Your task to perform on an android device: Open eBay Image 0: 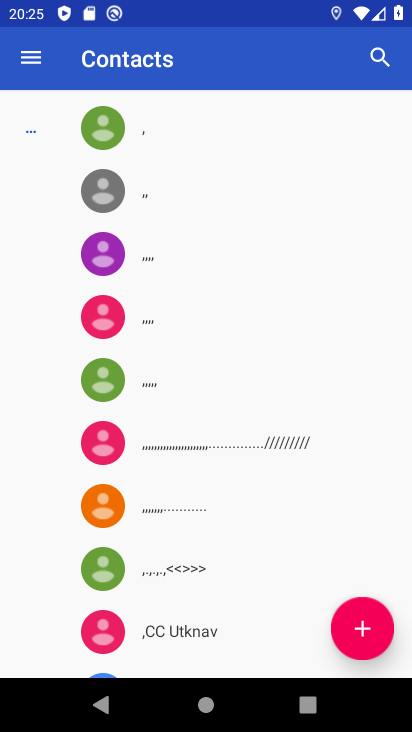
Step 0: press home button
Your task to perform on an android device: Open eBay Image 1: 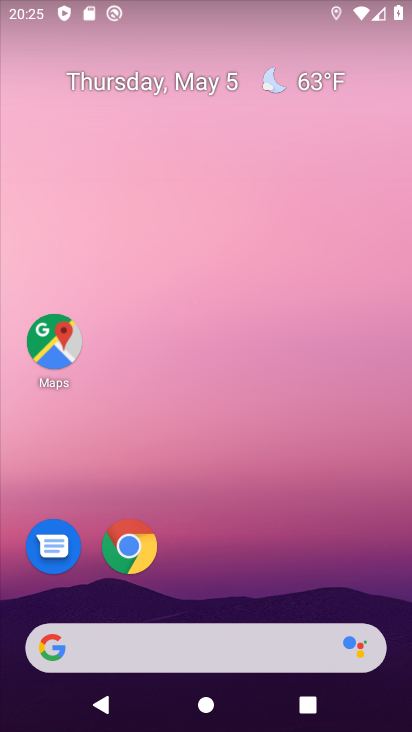
Step 1: drag from (273, 563) to (202, 141)
Your task to perform on an android device: Open eBay Image 2: 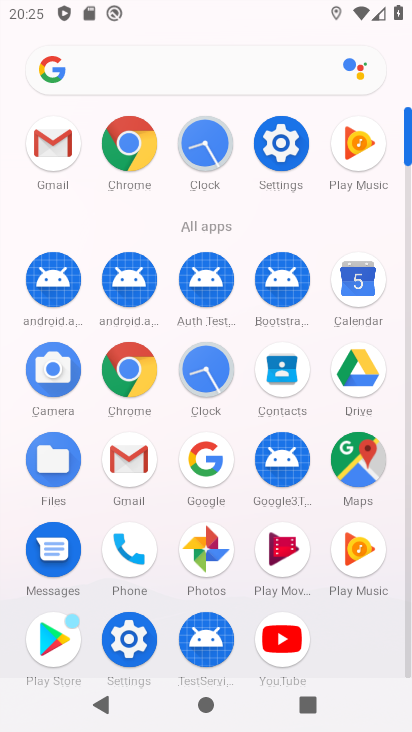
Step 2: click (130, 140)
Your task to perform on an android device: Open eBay Image 3: 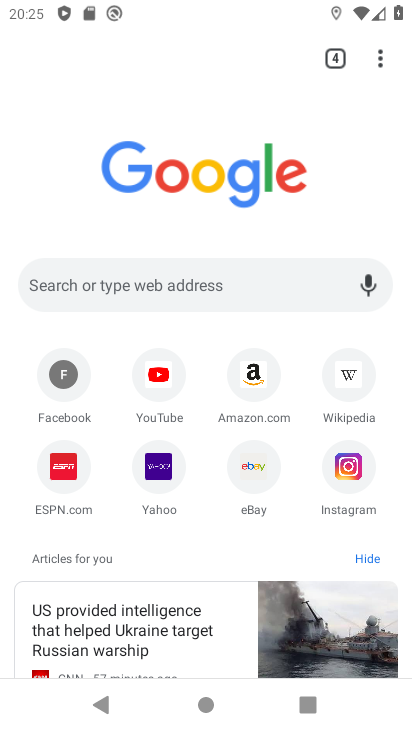
Step 3: click (255, 472)
Your task to perform on an android device: Open eBay Image 4: 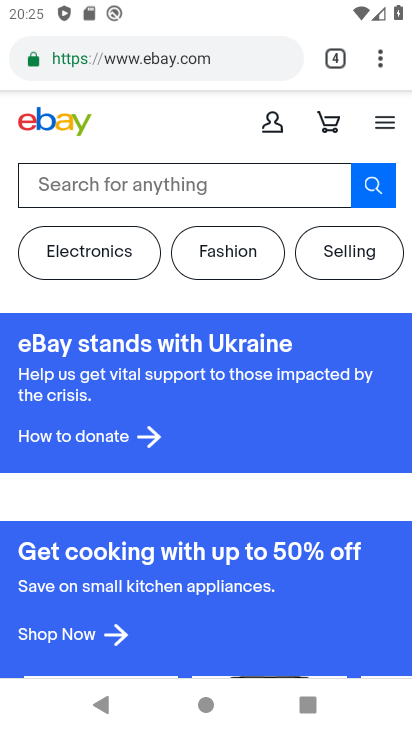
Step 4: task complete